Your task to perform on an android device: empty trash in google photos Image 0: 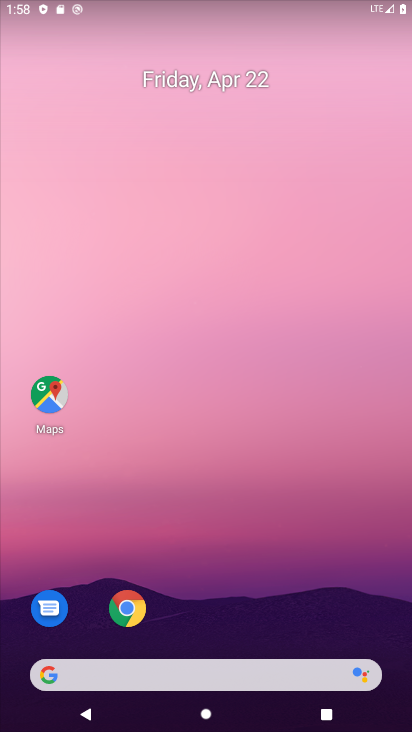
Step 0: click (277, 111)
Your task to perform on an android device: empty trash in google photos Image 1: 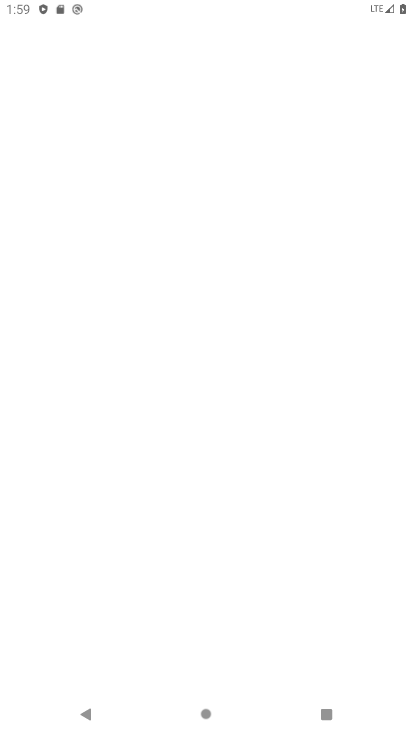
Step 1: press home button
Your task to perform on an android device: empty trash in google photos Image 2: 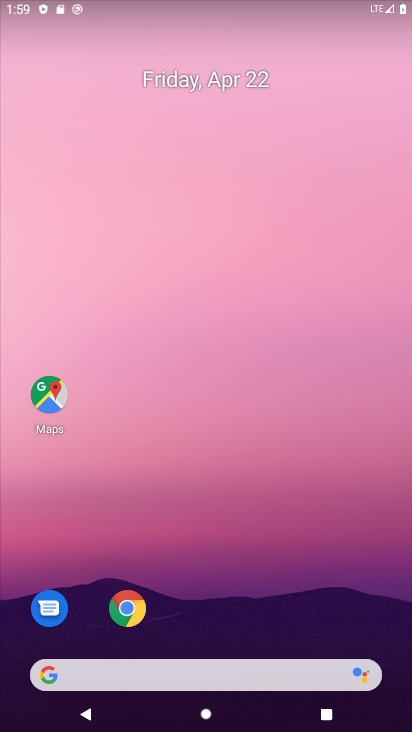
Step 2: drag from (263, 676) to (258, 100)
Your task to perform on an android device: empty trash in google photos Image 3: 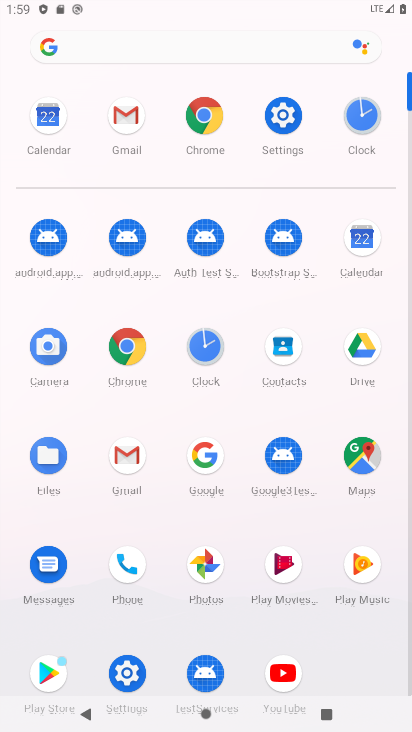
Step 3: click (213, 125)
Your task to perform on an android device: empty trash in google photos Image 4: 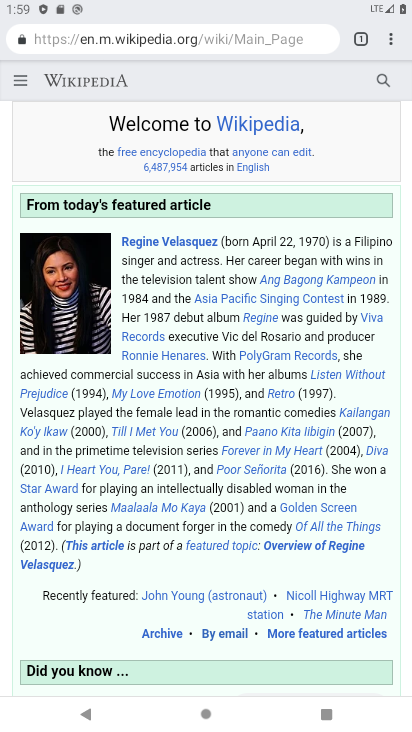
Step 4: press home button
Your task to perform on an android device: empty trash in google photos Image 5: 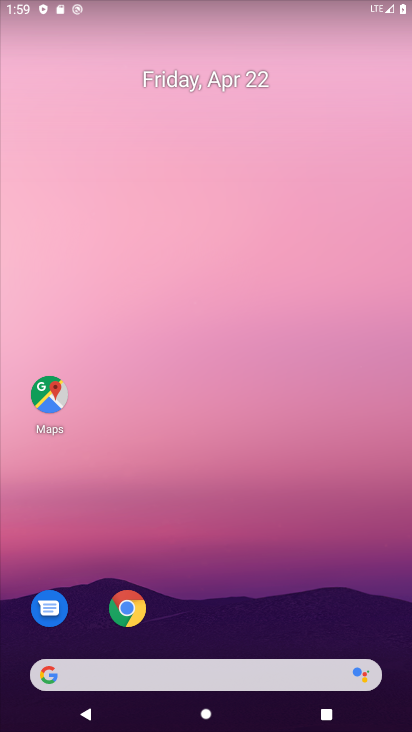
Step 5: drag from (247, 634) to (213, 194)
Your task to perform on an android device: empty trash in google photos Image 6: 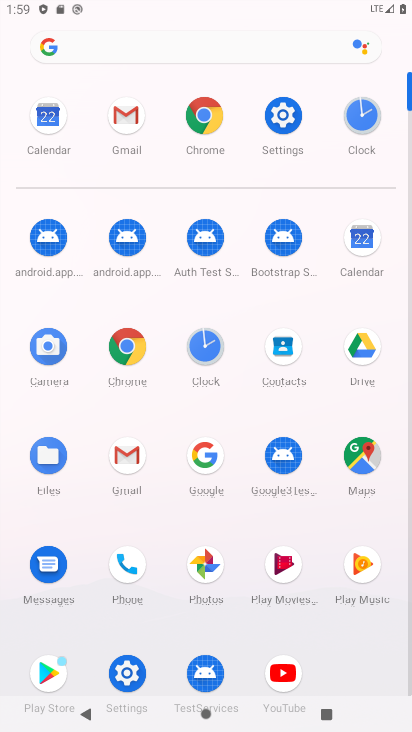
Step 6: click (205, 570)
Your task to perform on an android device: empty trash in google photos Image 7: 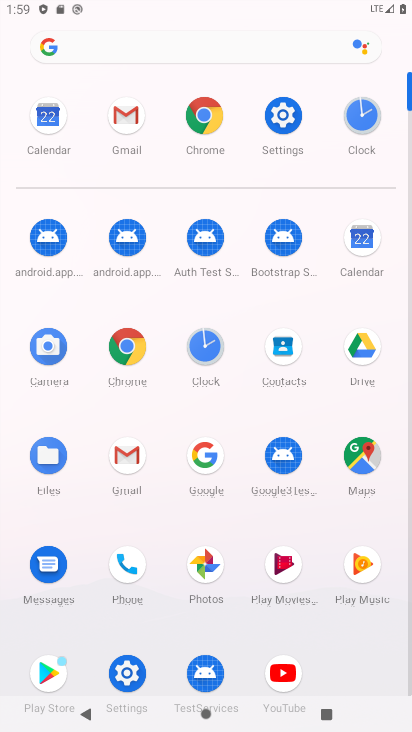
Step 7: click (206, 563)
Your task to perform on an android device: empty trash in google photos Image 8: 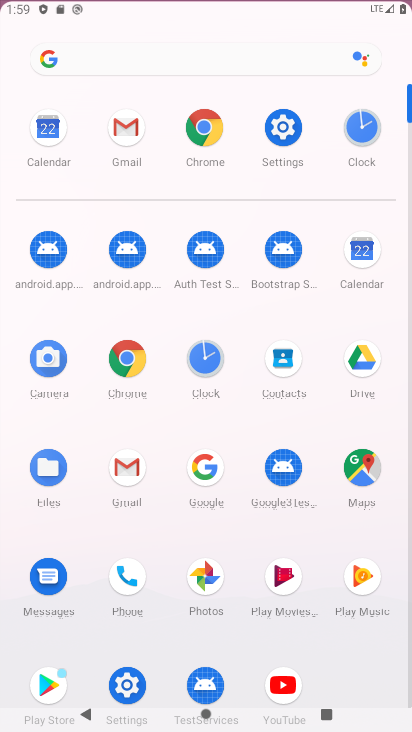
Step 8: click (202, 571)
Your task to perform on an android device: empty trash in google photos Image 9: 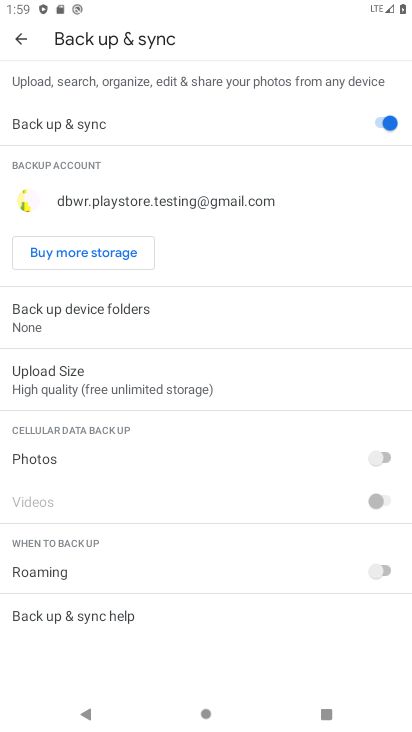
Step 9: click (19, 30)
Your task to perform on an android device: empty trash in google photos Image 10: 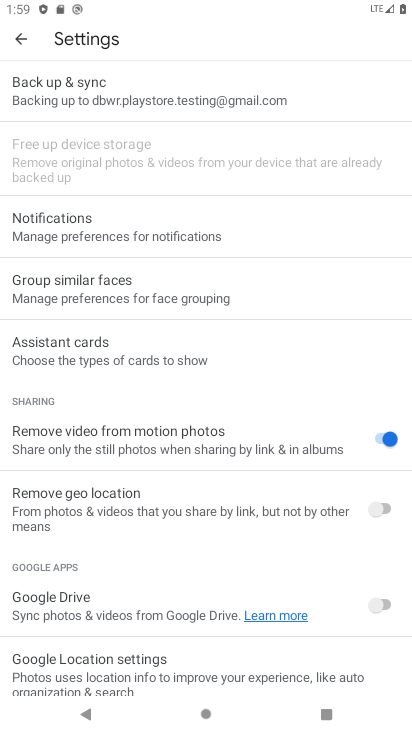
Step 10: click (23, 33)
Your task to perform on an android device: empty trash in google photos Image 11: 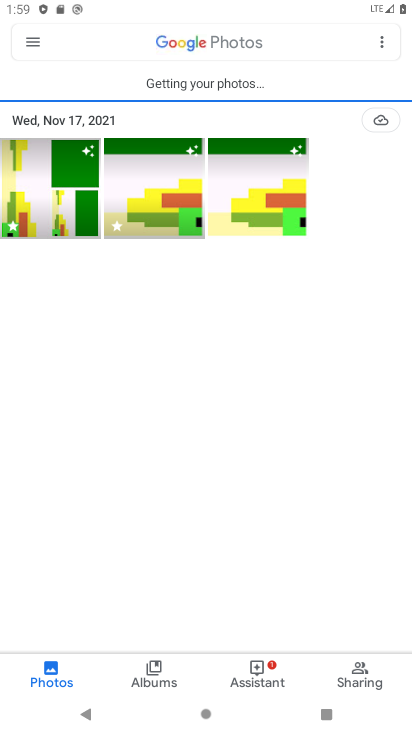
Step 11: click (37, 51)
Your task to perform on an android device: empty trash in google photos Image 12: 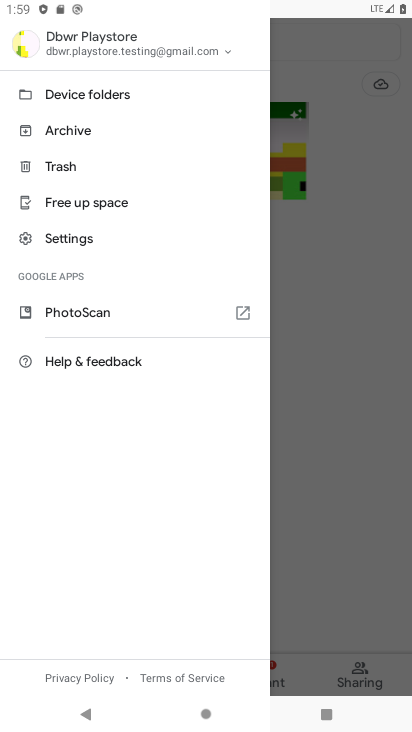
Step 12: click (90, 164)
Your task to perform on an android device: empty trash in google photos Image 13: 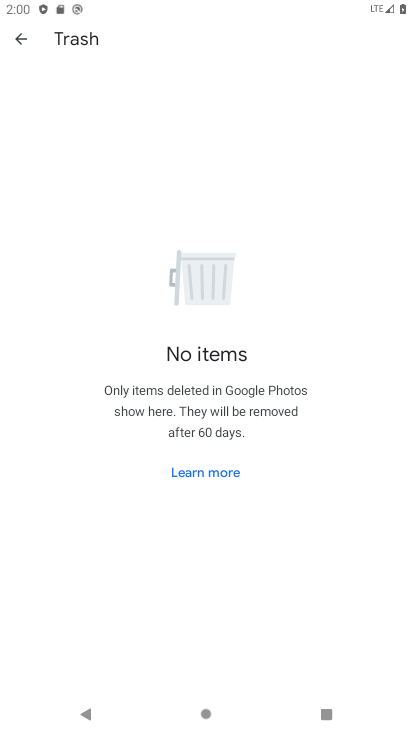
Step 13: task complete